Your task to perform on an android device: manage bookmarks in the chrome app Image 0: 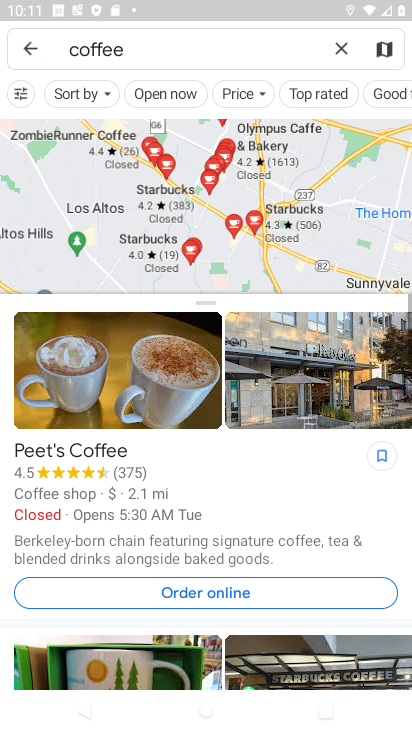
Step 0: press home button
Your task to perform on an android device: manage bookmarks in the chrome app Image 1: 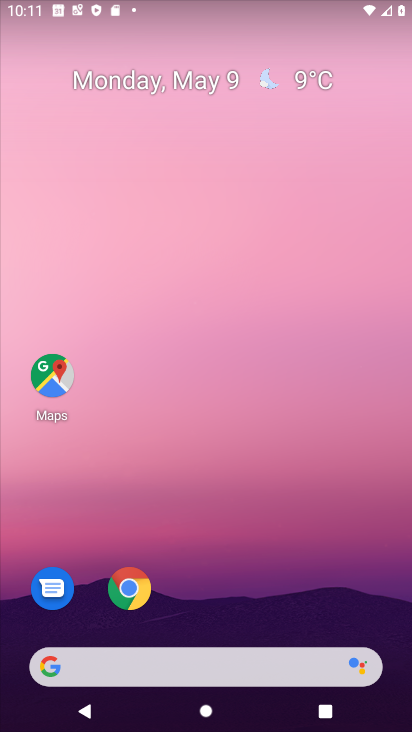
Step 1: drag from (128, 679) to (253, 53)
Your task to perform on an android device: manage bookmarks in the chrome app Image 2: 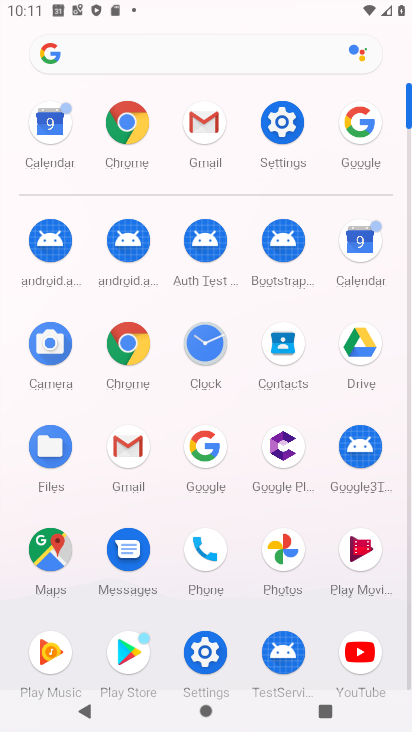
Step 2: click (129, 125)
Your task to perform on an android device: manage bookmarks in the chrome app Image 3: 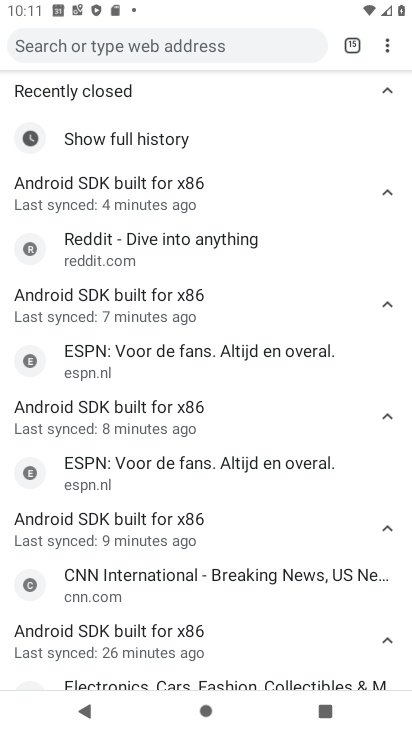
Step 3: drag from (385, 40) to (275, 166)
Your task to perform on an android device: manage bookmarks in the chrome app Image 4: 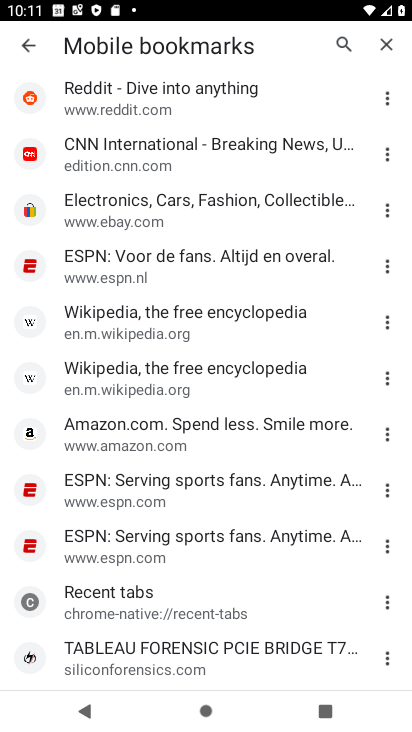
Step 4: click (384, 97)
Your task to perform on an android device: manage bookmarks in the chrome app Image 5: 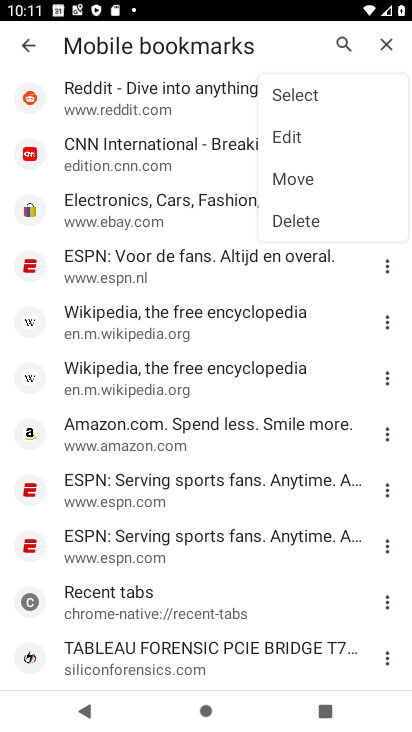
Step 5: click (315, 227)
Your task to perform on an android device: manage bookmarks in the chrome app Image 6: 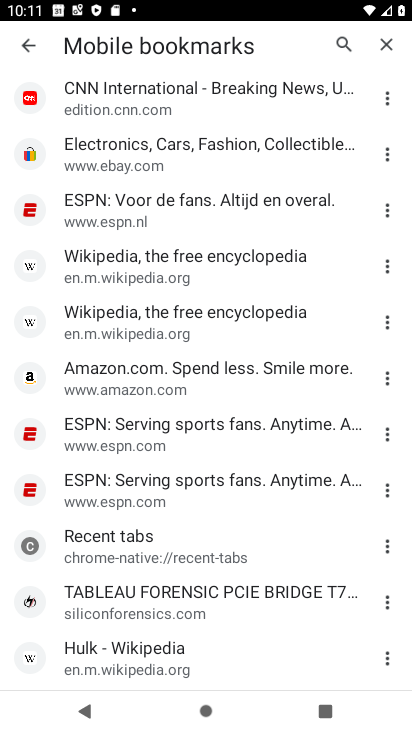
Step 6: task complete